Your task to perform on an android device: open chrome privacy settings Image 0: 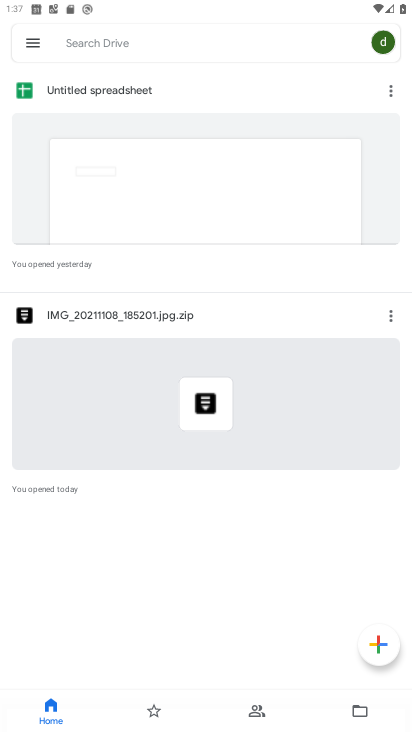
Step 0: press home button
Your task to perform on an android device: open chrome privacy settings Image 1: 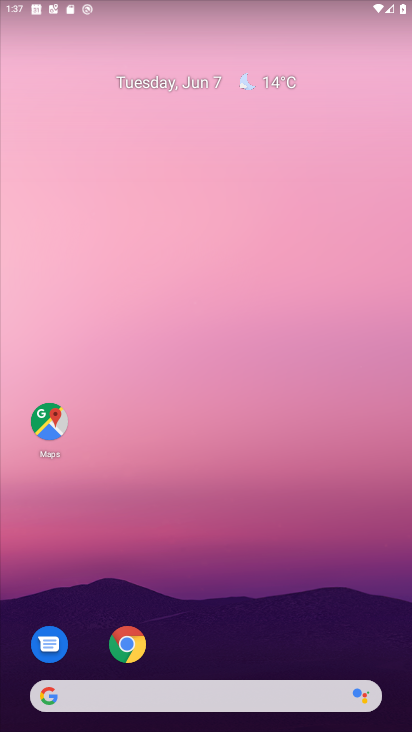
Step 1: click (130, 636)
Your task to perform on an android device: open chrome privacy settings Image 2: 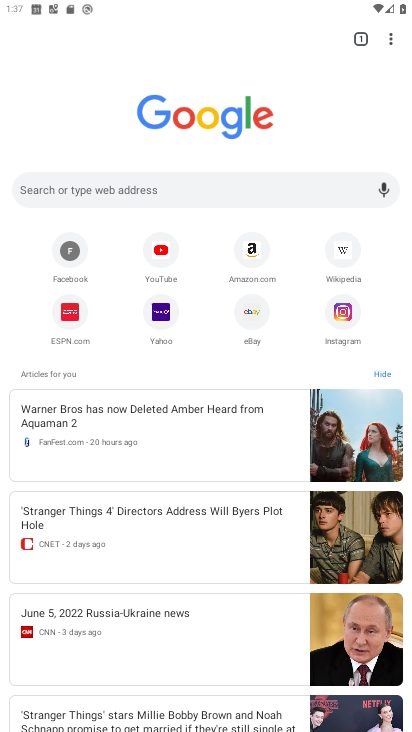
Step 2: click (389, 37)
Your task to perform on an android device: open chrome privacy settings Image 3: 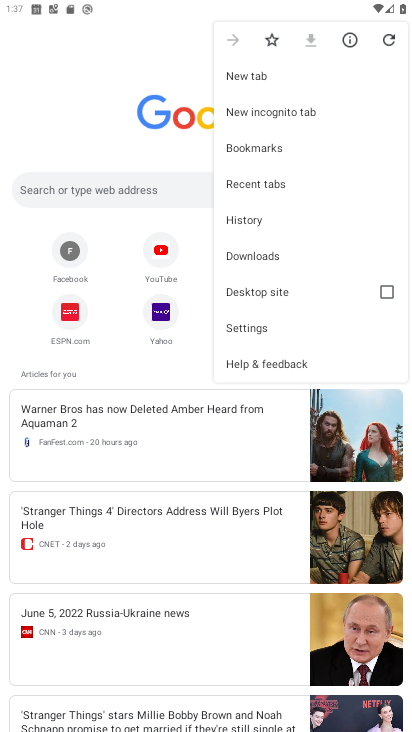
Step 3: click (262, 333)
Your task to perform on an android device: open chrome privacy settings Image 4: 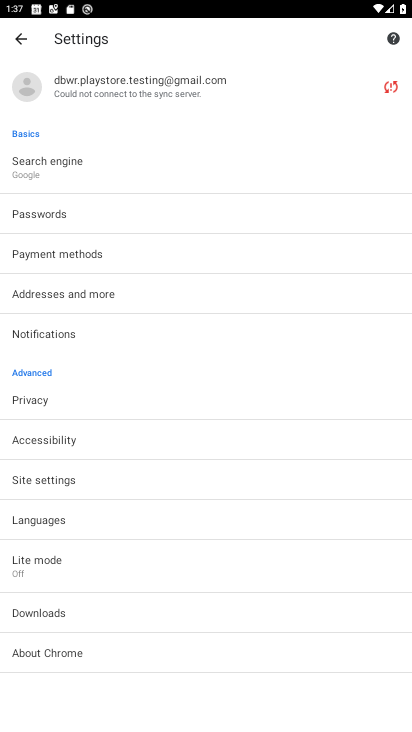
Step 4: click (28, 406)
Your task to perform on an android device: open chrome privacy settings Image 5: 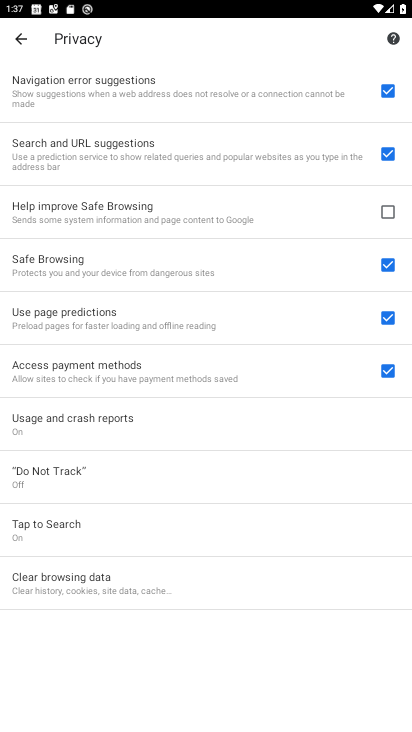
Step 5: task complete